Your task to perform on an android device: Turn off the flashlight Image 0: 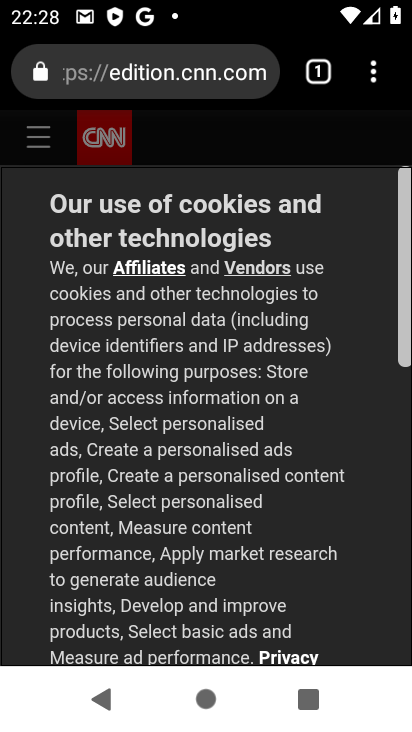
Step 0: press home button
Your task to perform on an android device: Turn off the flashlight Image 1: 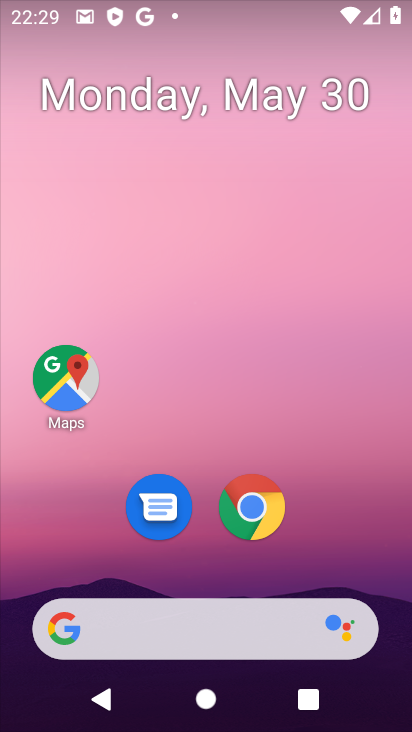
Step 1: drag from (285, 6) to (297, 367)
Your task to perform on an android device: Turn off the flashlight Image 2: 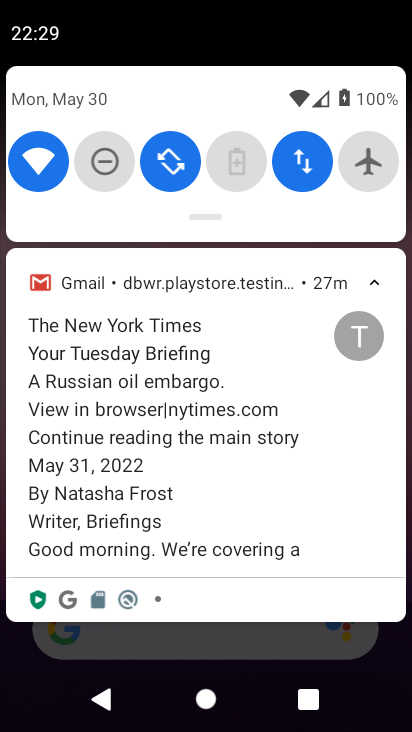
Step 2: drag from (192, 92) to (211, 409)
Your task to perform on an android device: Turn off the flashlight Image 3: 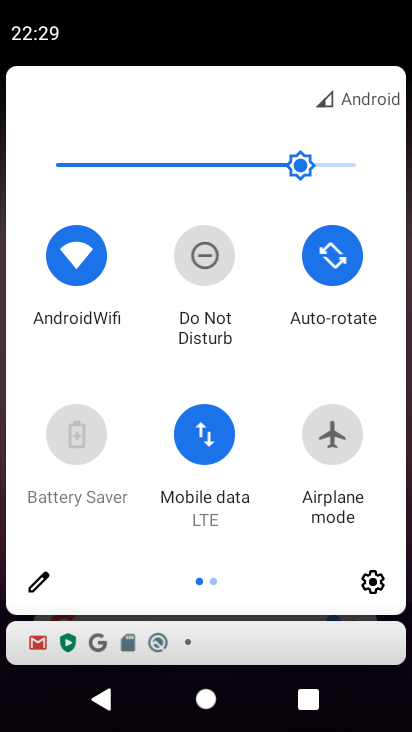
Step 3: click (46, 590)
Your task to perform on an android device: Turn off the flashlight Image 4: 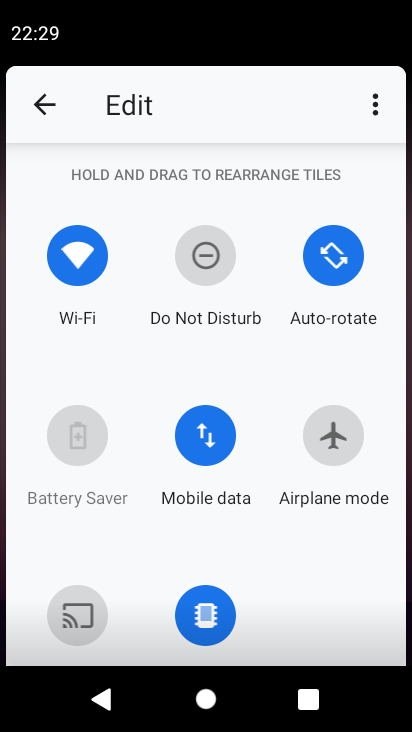
Step 4: task complete